Your task to perform on an android device: toggle translation in the chrome app Image 0: 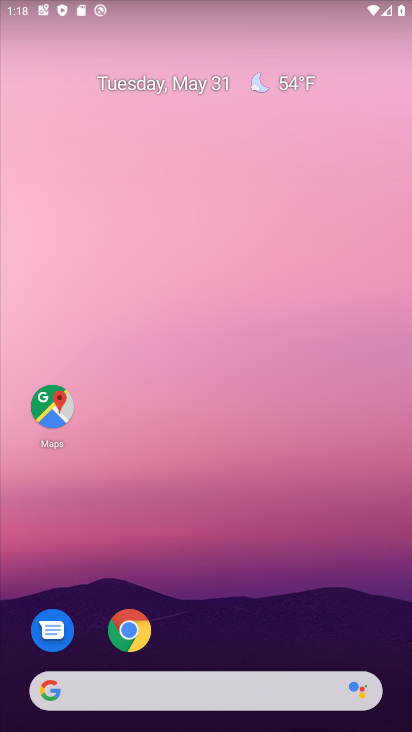
Step 0: click (135, 627)
Your task to perform on an android device: toggle translation in the chrome app Image 1: 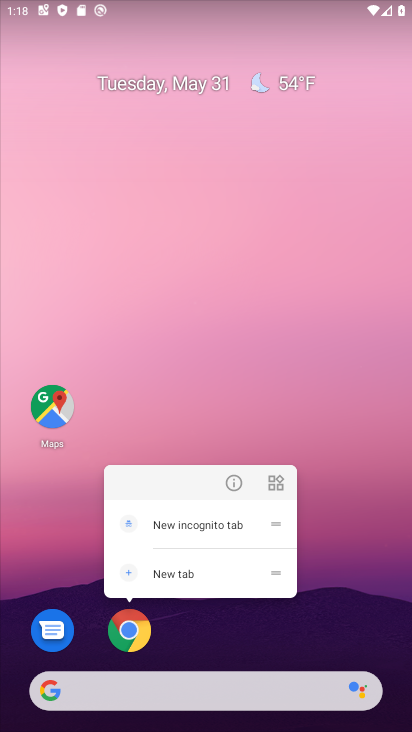
Step 1: click (135, 628)
Your task to perform on an android device: toggle translation in the chrome app Image 2: 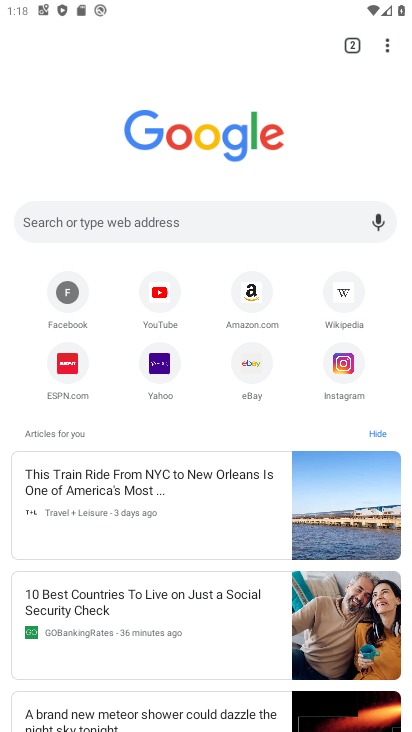
Step 2: click (380, 48)
Your task to perform on an android device: toggle translation in the chrome app Image 3: 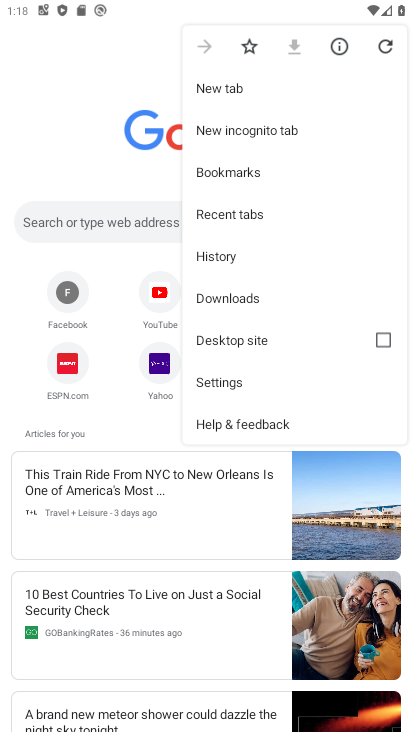
Step 3: click (274, 381)
Your task to perform on an android device: toggle translation in the chrome app Image 4: 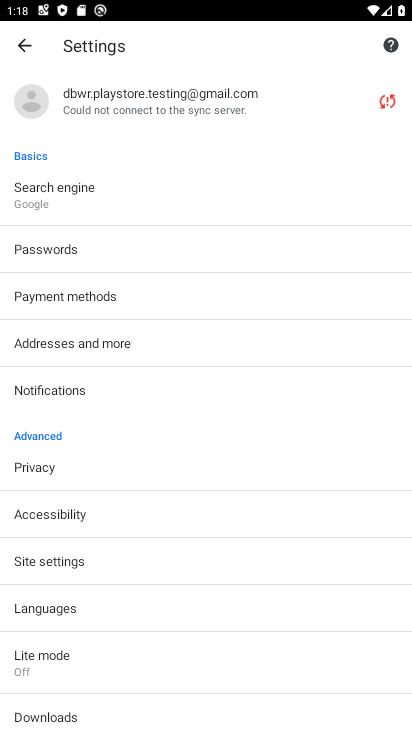
Step 4: click (66, 611)
Your task to perform on an android device: toggle translation in the chrome app Image 5: 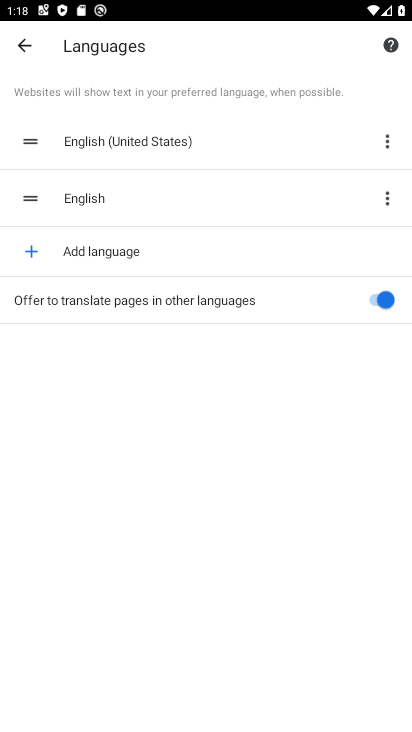
Step 5: click (376, 302)
Your task to perform on an android device: toggle translation in the chrome app Image 6: 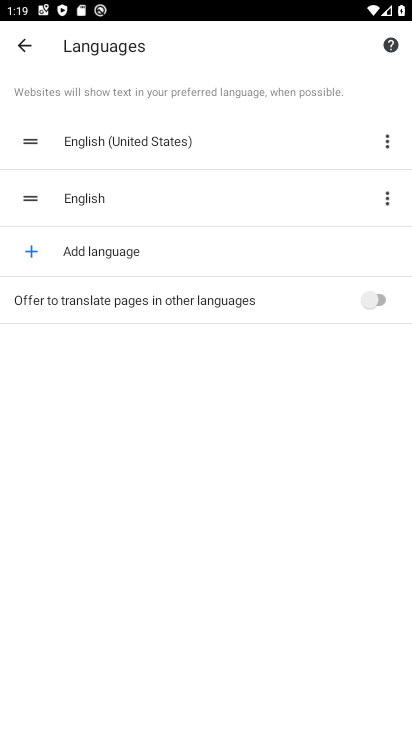
Step 6: task complete